Your task to perform on an android device: turn on showing notifications on the lock screen Image 0: 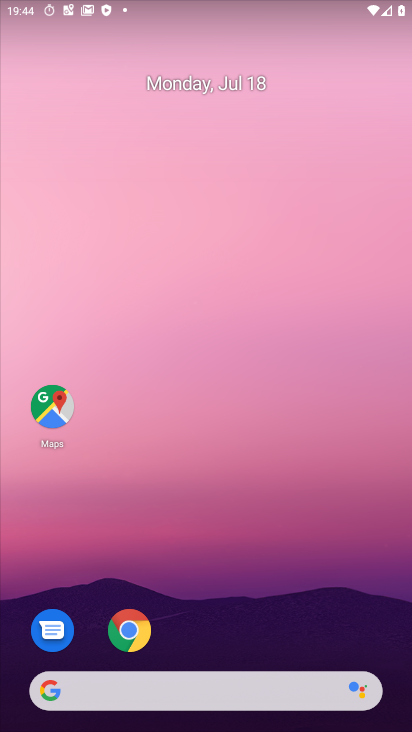
Step 0: drag from (210, 472) to (148, 0)
Your task to perform on an android device: turn on showing notifications on the lock screen Image 1: 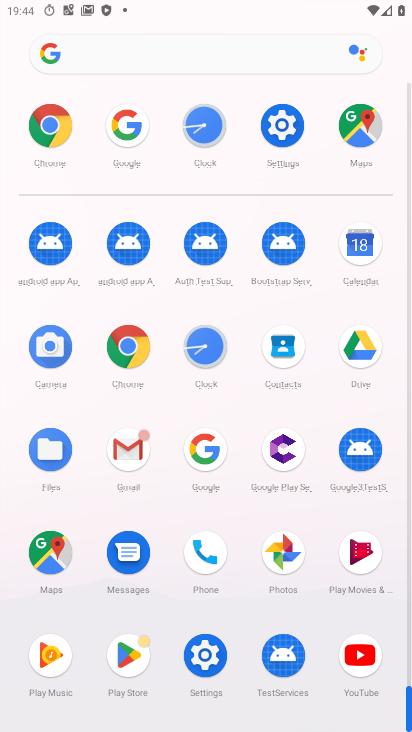
Step 1: click (285, 125)
Your task to perform on an android device: turn on showing notifications on the lock screen Image 2: 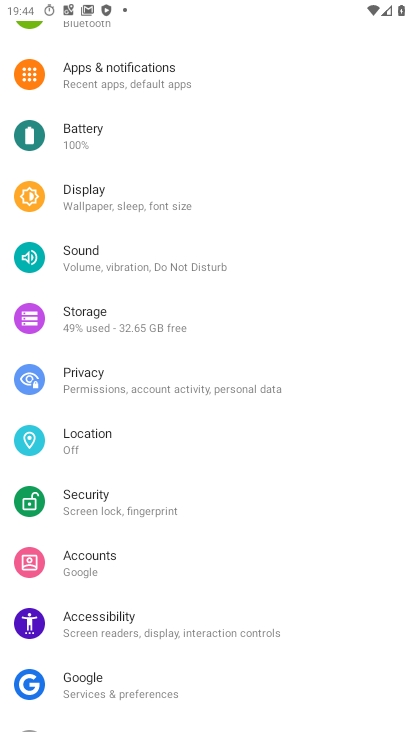
Step 2: drag from (210, 201) to (219, 591)
Your task to perform on an android device: turn on showing notifications on the lock screen Image 3: 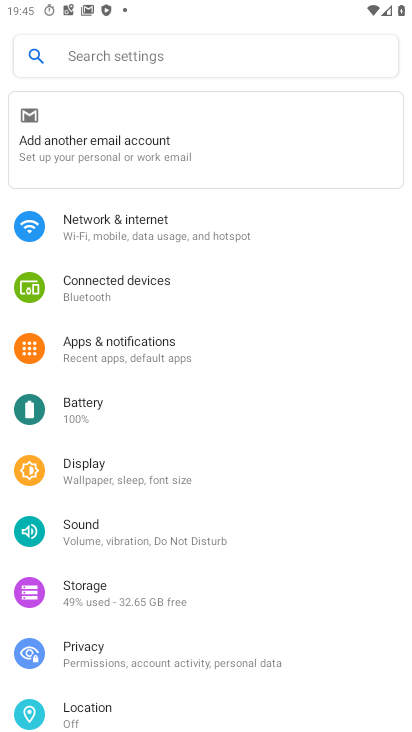
Step 3: click (98, 339)
Your task to perform on an android device: turn on showing notifications on the lock screen Image 4: 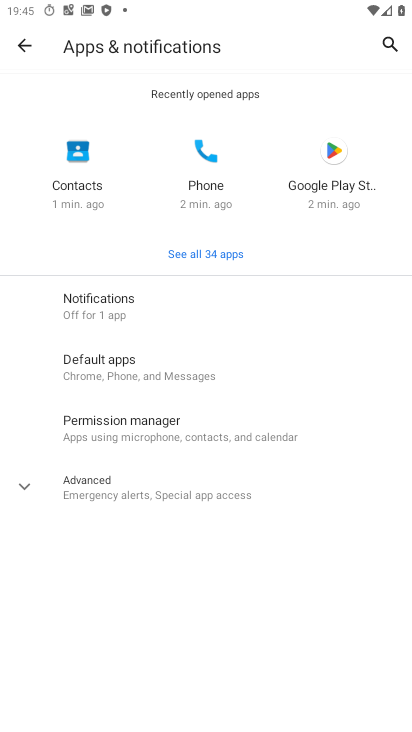
Step 4: click (82, 306)
Your task to perform on an android device: turn on showing notifications on the lock screen Image 5: 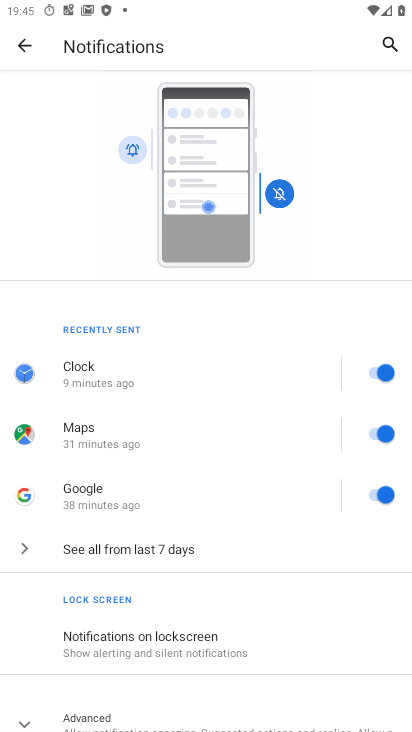
Step 5: drag from (176, 644) to (131, 253)
Your task to perform on an android device: turn on showing notifications on the lock screen Image 6: 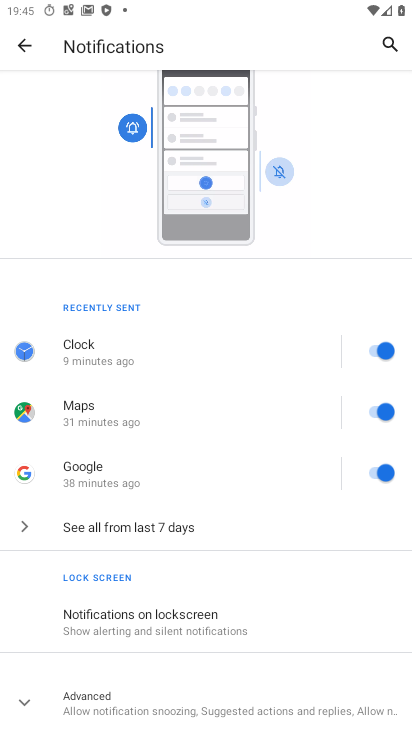
Step 6: click (131, 622)
Your task to perform on an android device: turn on showing notifications on the lock screen Image 7: 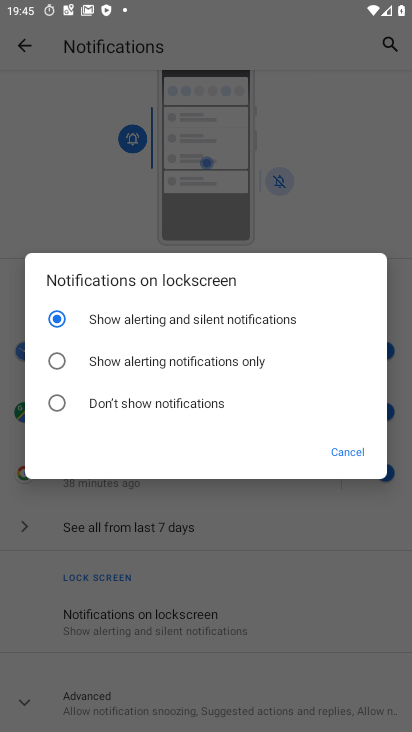
Step 7: click (81, 354)
Your task to perform on an android device: turn on showing notifications on the lock screen Image 8: 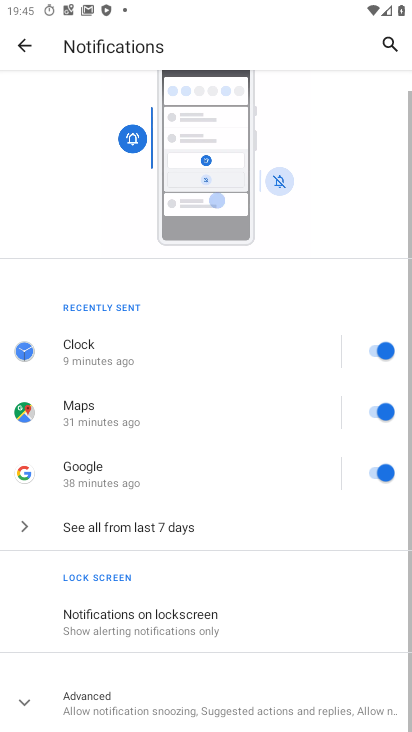
Step 8: task complete